Your task to perform on an android device: Open the web browser Image 0: 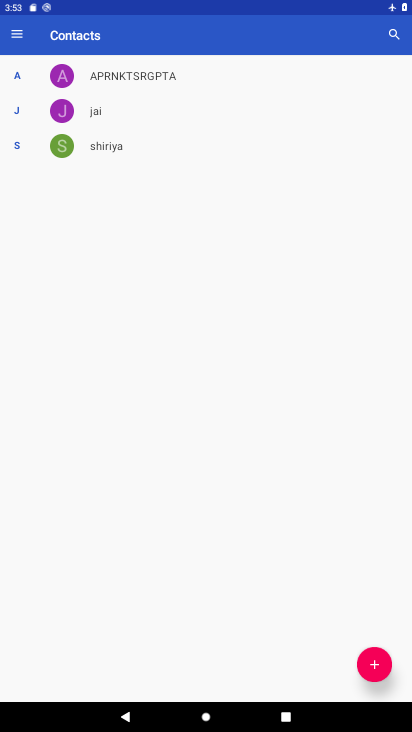
Step 0: click (267, 575)
Your task to perform on an android device: Open the web browser Image 1: 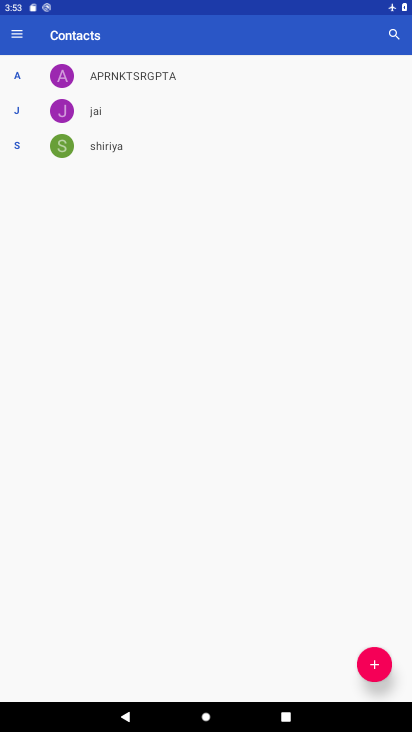
Step 1: press home button
Your task to perform on an android device: Open the web browser Image 2: 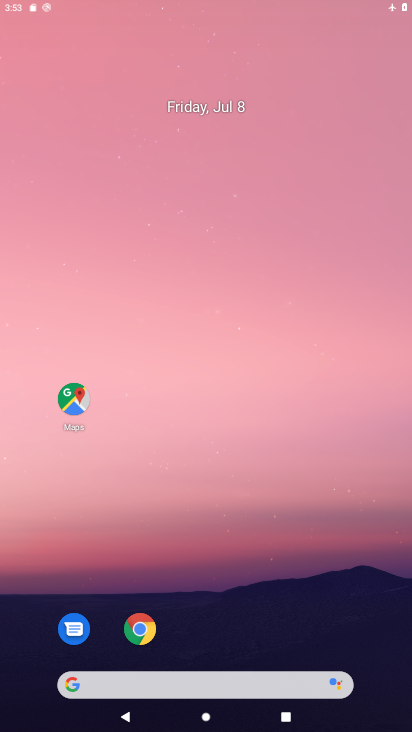
Step 2: drag from (139, 666) to (150, 426)
Your task to perform on an android device: Open the web browser Image 3: 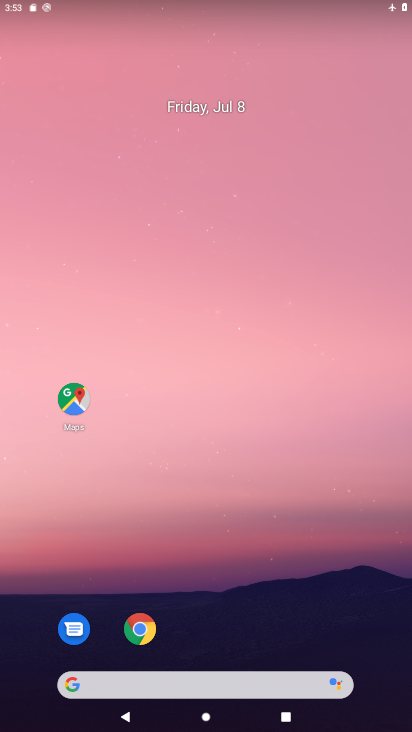
Step 3: drag from (213, 691) to (177, 193)
Your task to perform on an android device: Open the web browser Image 4: 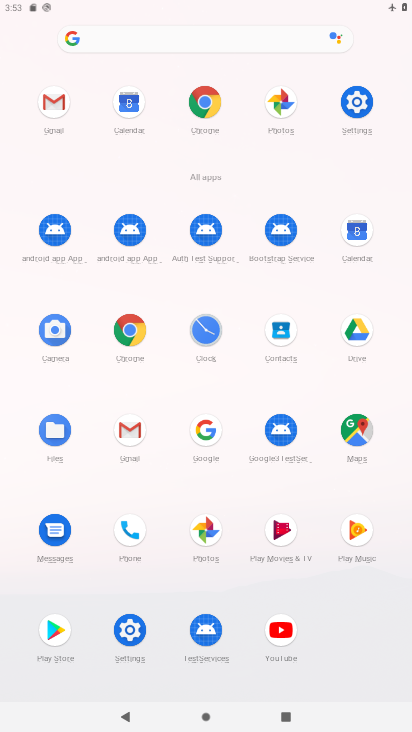
Step 4: click (205, 99)
Your task to perform on an android device: Open the web browser Image 5: 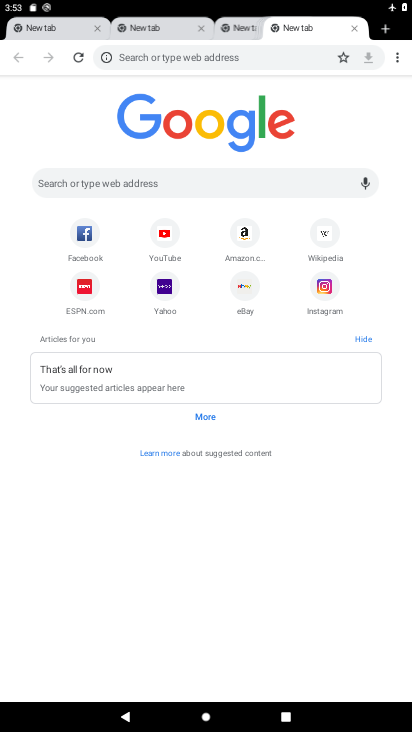
Step 5: task complete